Your task to perform on an android device: Open battery settings Image 0: 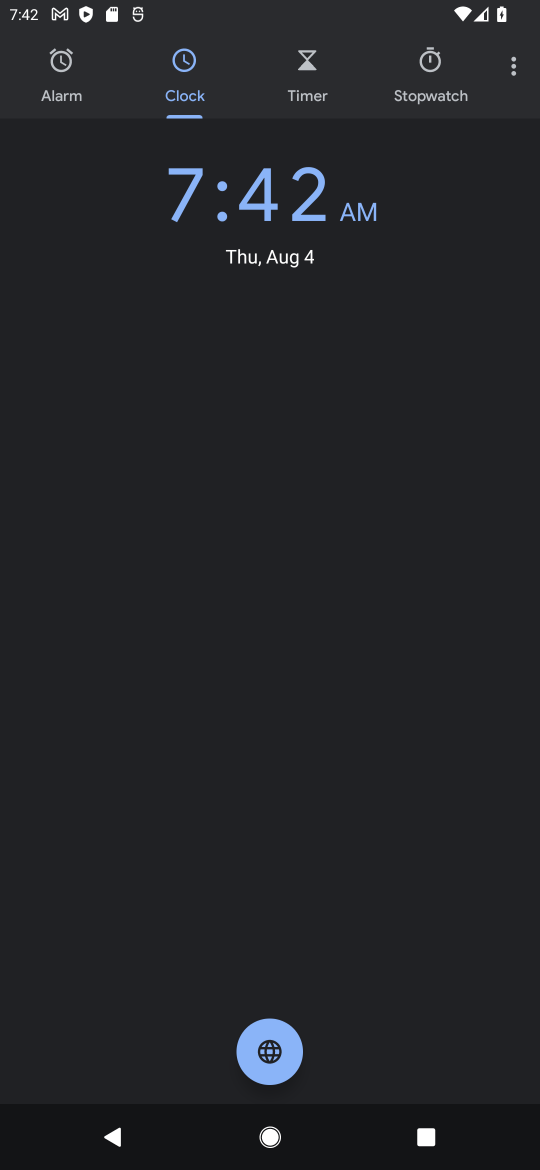
Step 0: press home button
Your task to perform on an android device: Open battery settings Image 1: 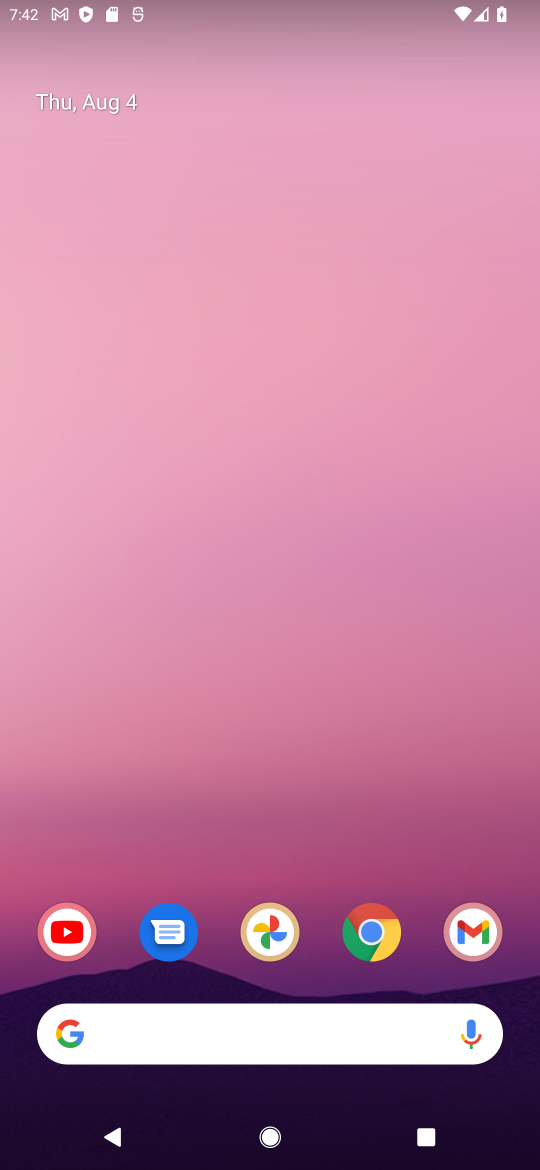
Step 1: drag from (301, 871) to (207, 228)
Your task to perform on an android device: Open battery settings Image 2: 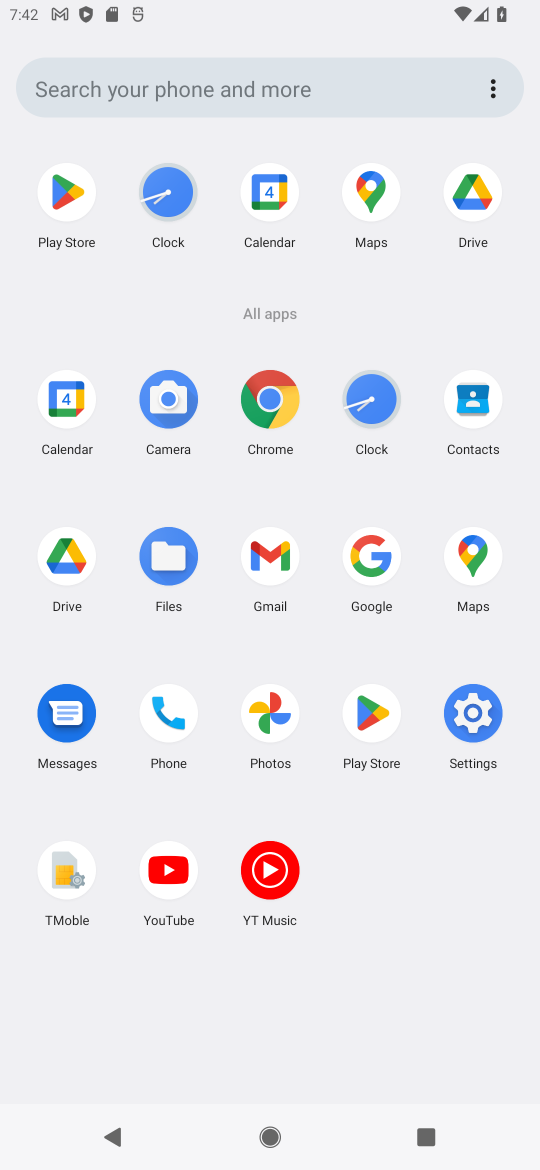
Step 2: click (474, 725)
Your task to perform on an android device: Open battery settings Image 3: 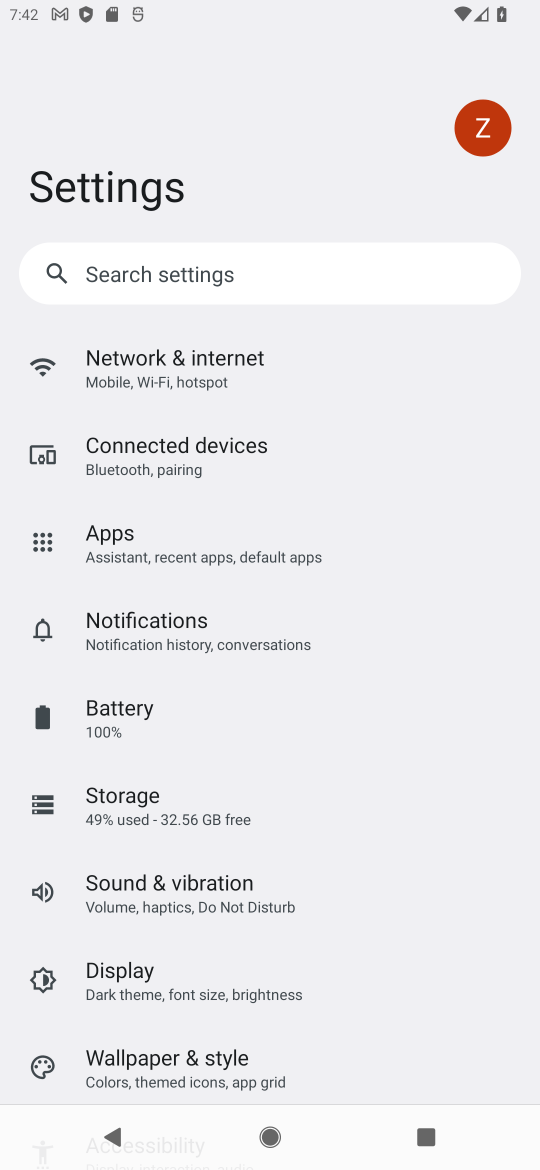
Step 3: click (178, 713)
Your task to perform on an android device: Open battery settings Image 4: 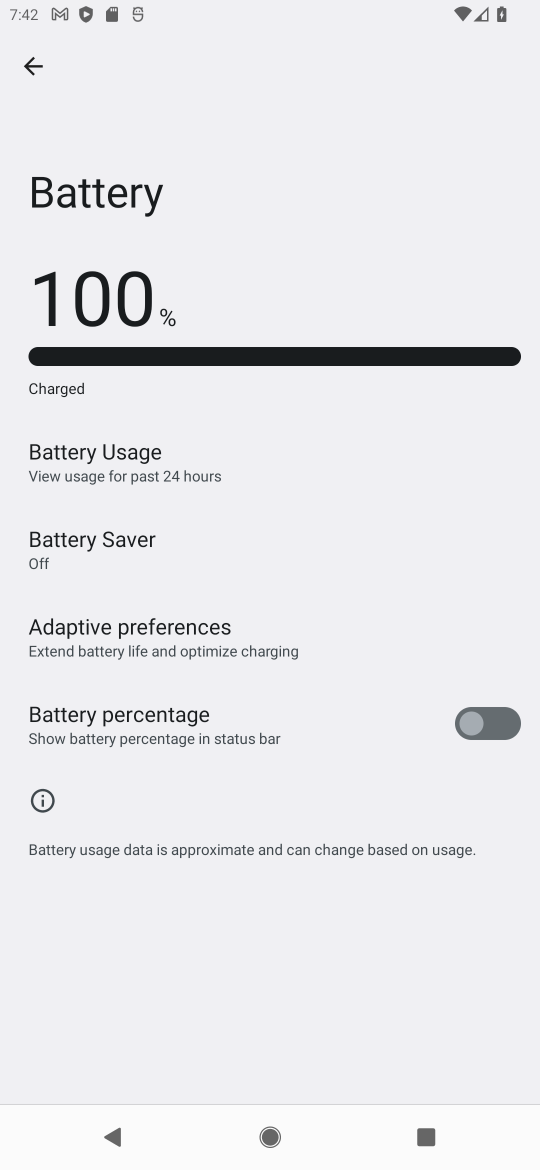
Step 4: task complete